Your task to perform on an android device: open the mobile data screen to see how much data has been used Image 0: 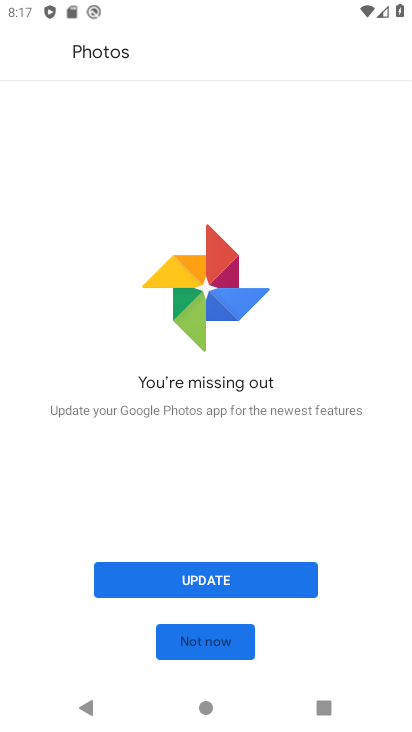
Step 0: press home button
Your task to perform on an android device: open the mobile data screen to see how much data has been used Image 1: 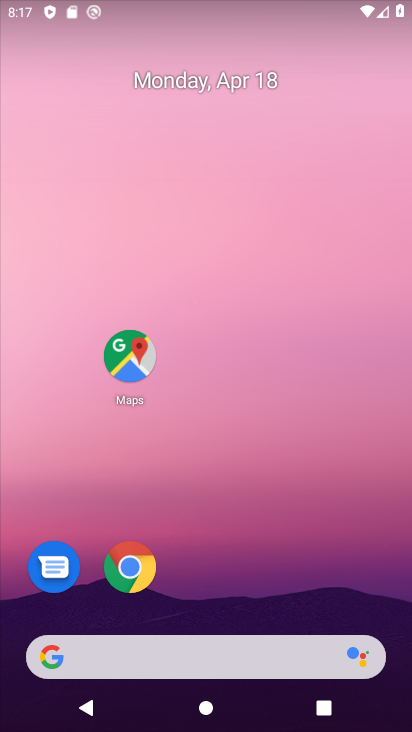
Step 1: drag from (249, 700) to (251, 199)
Your task to perform on an android device: open the mobile data screen to see how much data has been used Image 2: 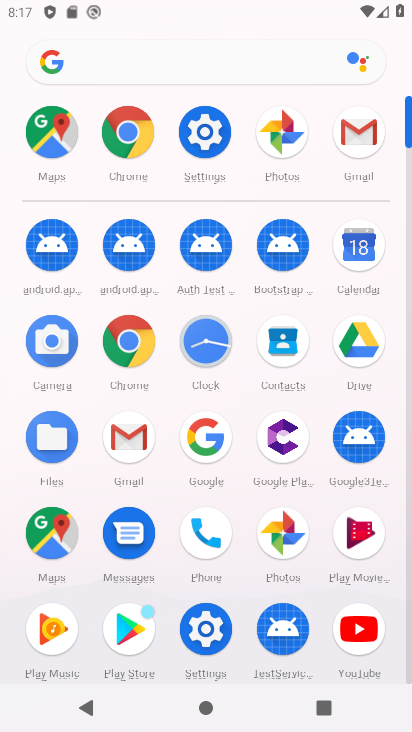
Step 2: click (219, 150)
Your task to perform on an android device: open the mobile data screen to see how much data has been used Image 3: 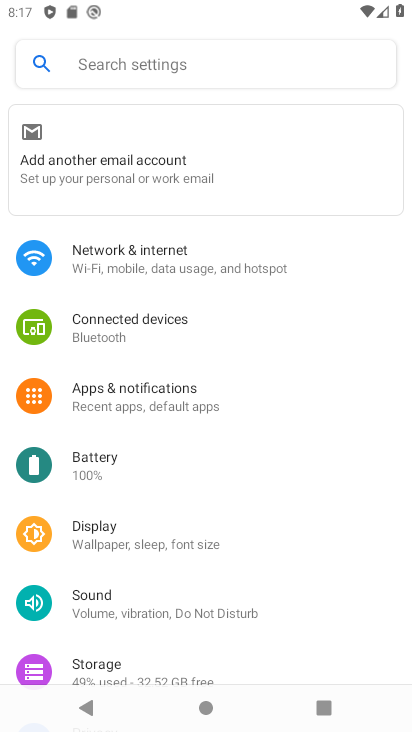
Step 3: click (220, 67)
Your task to perform on an android device: open the mobile data screen to see how much data has been used Image 4: 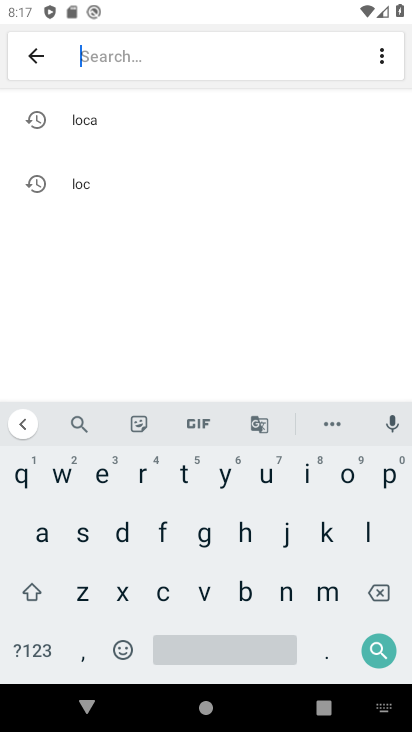
Step 4: click (121, 534)
Your task to perform on an android device: open the mobile data screen to see how much data has been used Image 5: 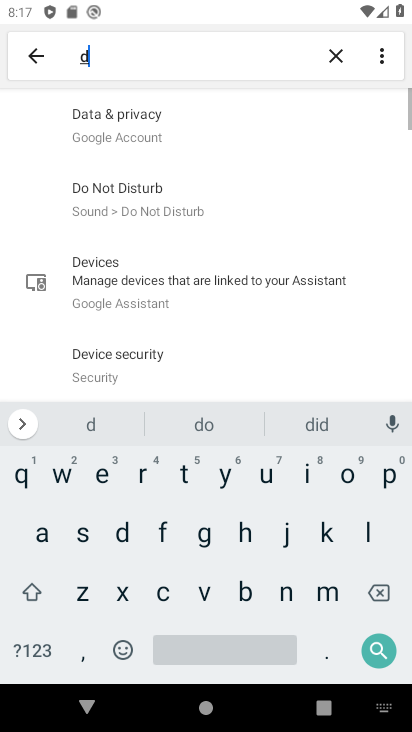
Step 5: click (46, 534)
Your task to perform on an android device: open the mobile data screen to see how much data has been used Image 6: 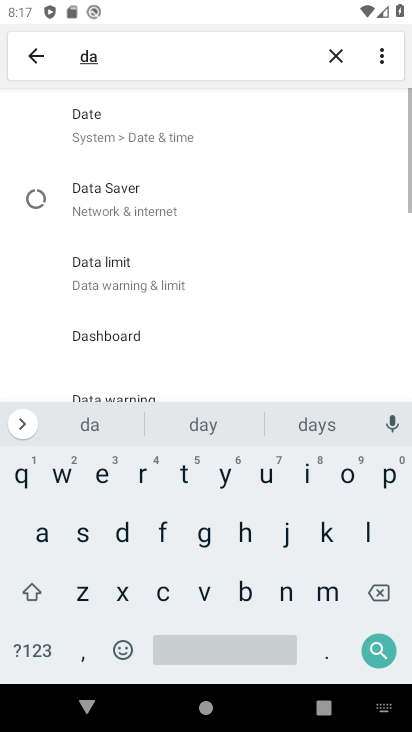
Step 6: click (185, 481)
Your task to perform on an android device: open the mobile data screen to see how much data has been used Image 7: 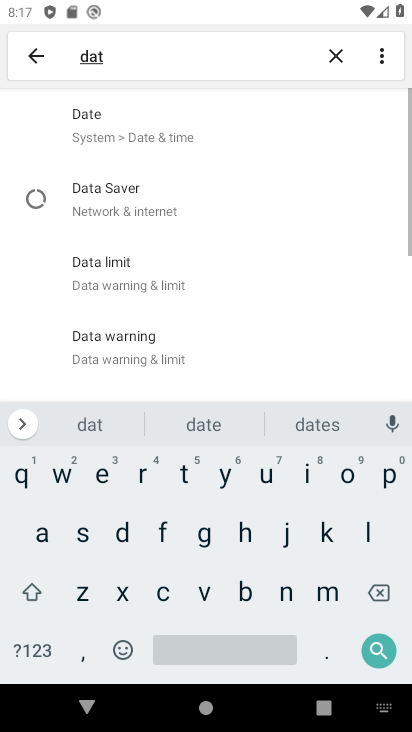
Step 7: click (42, 528)
Your task to perform on an android device: open the mobile data screen to see how much data has been used Image 8: 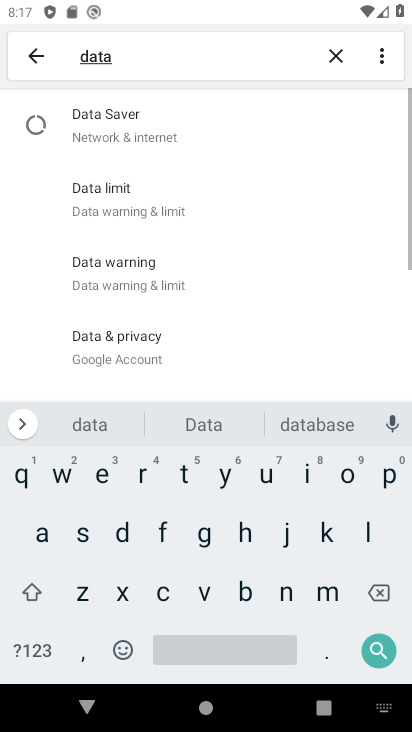
Step 8: click (194, 648)
Your task to perform on an android device: open the mobile data screen to see how much data has been used Image 9: 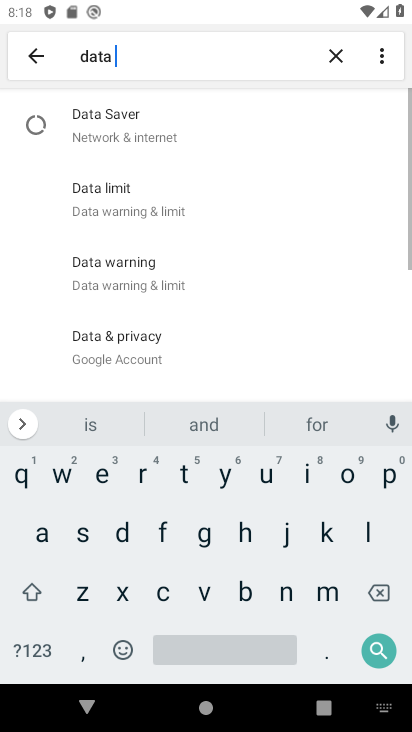
Step 9: click (267, 475)
Your task to perform on an android device: open the mobile data screen to see how much data has been used Image 10: 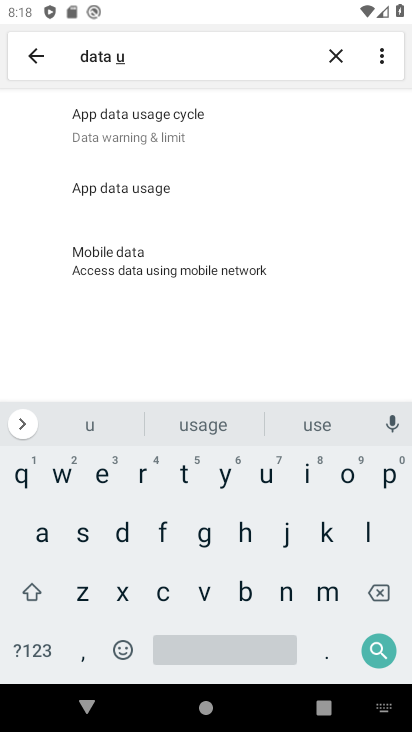
Step 10: click (175, 194)
Your task to perform on an android device: open the mobile data screen to see how much data has been used Image 11: 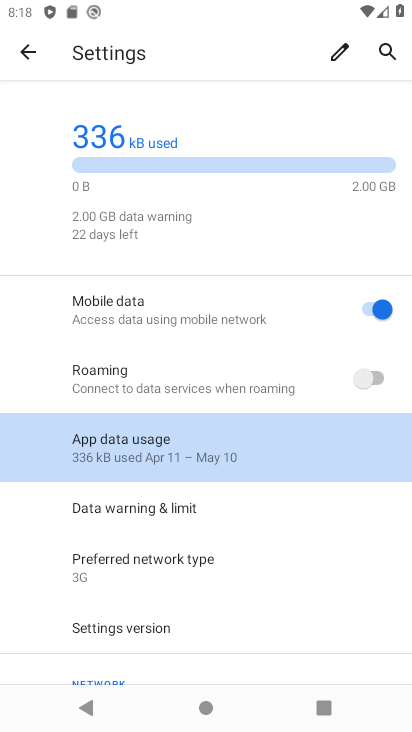
Step 11: click (158, 457)
Your task to perform on an android device: open the mobile data screen to see how much data has been used Image 12: 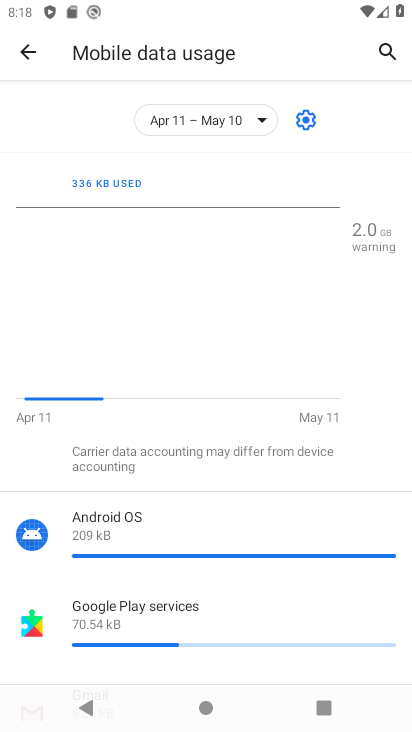
Step 12: task complete